Your task to perform on an android device: What's on my calendar today? Image 0: 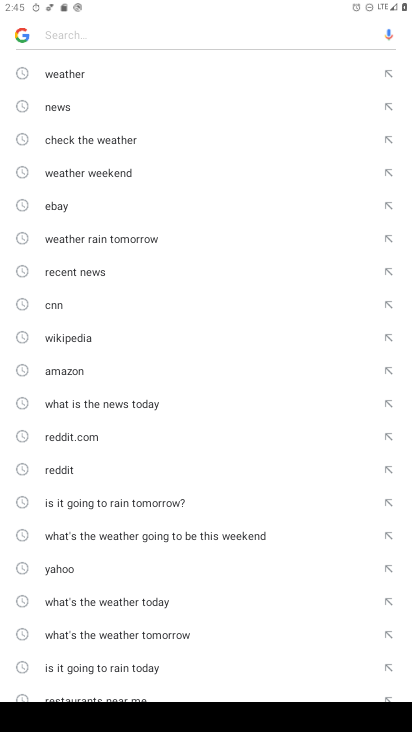
Step 0: press home button
Your task to perform on an android device: What's on my calendar today? Image 1: 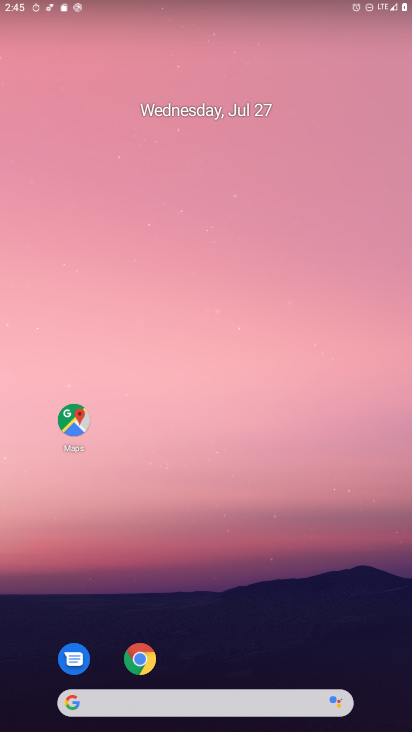
Step 1: drag from (267, 409) to (277, 36)
Your task to perform on an android device: What's on my calendar today? Image 2: 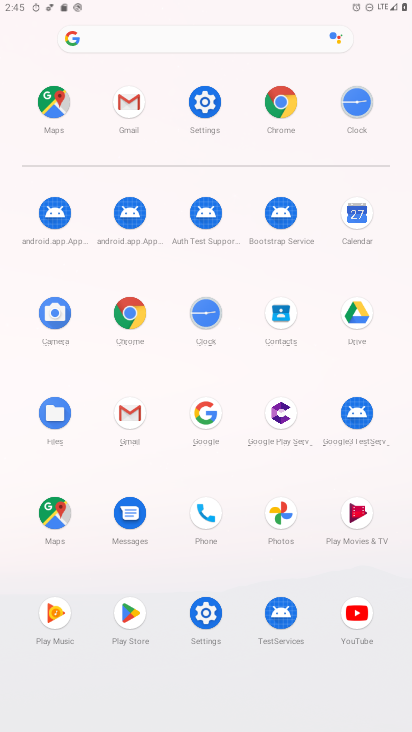
Step 2: click (365, 205)
Your task to perform on an android device: What's on my calendar today? Image 3: 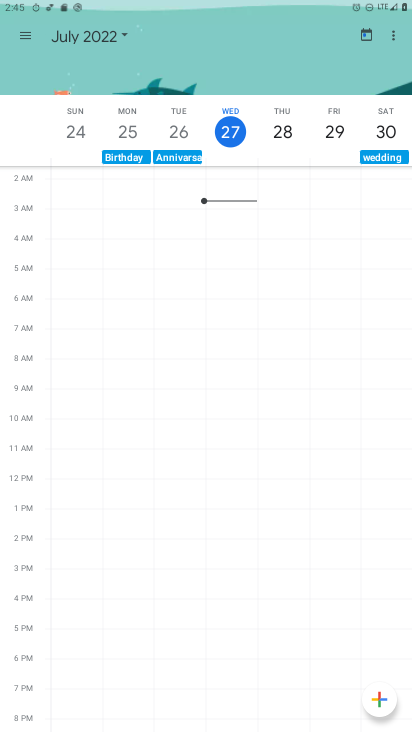
Step 3: task complete